Your task to perform on an android device: What's on my calendar tomorrow? Image 0: 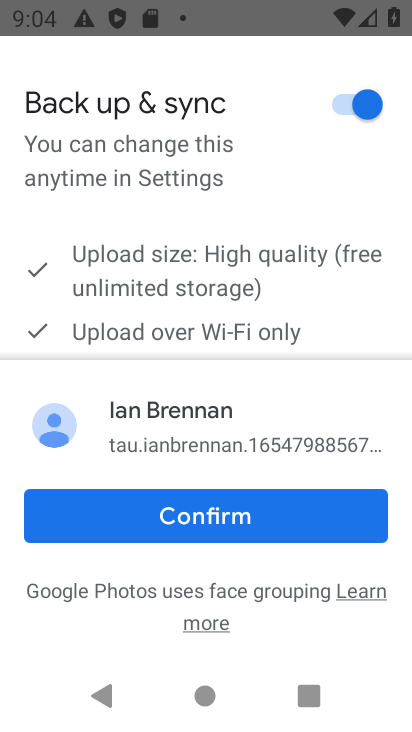
Step 0: press back button
Your task to perform on an android device: What's on my calendar tomorrow? Image 1: 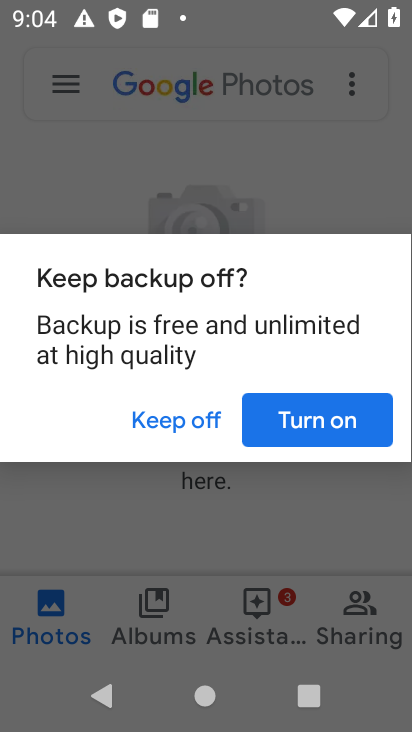
Step 1: press home button
Your task to perform on an android device: What's on my calendar tomorrow? Image 2: 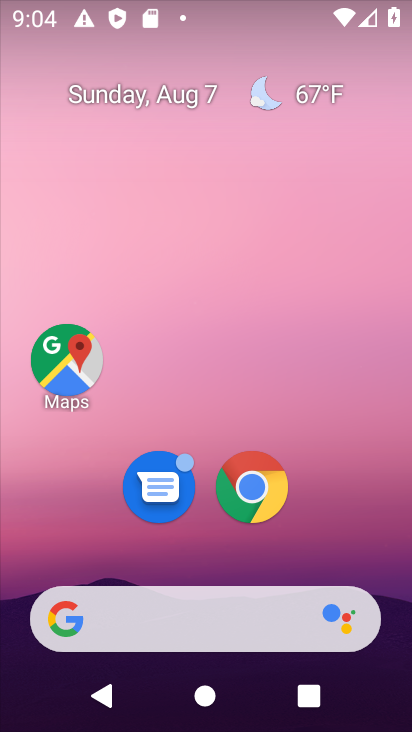
Step 2: drag from (362, 685) to (311, 76)
Your task to perform on an android device: What's on my calendar tomorrow? Image 3: 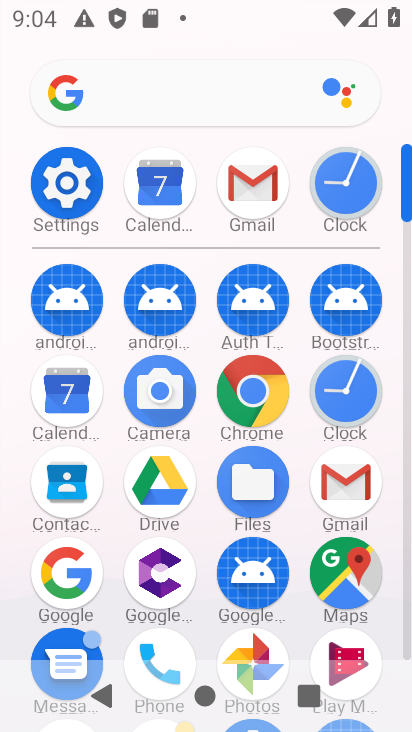
Step 3: click (62, 406)
Your task to perform on an android device: What's on my calendar tomorrow? Image 4: 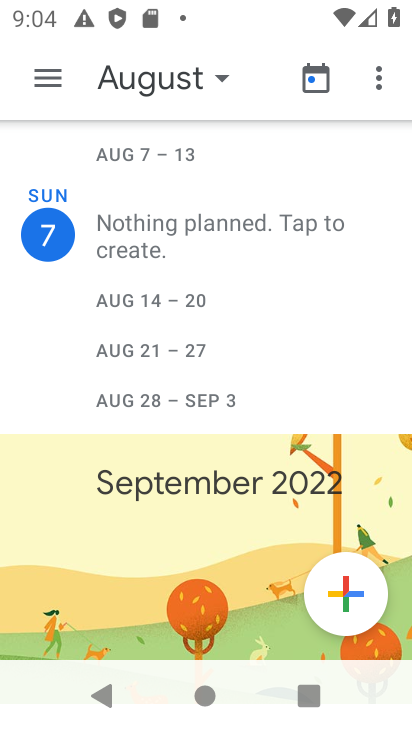
Step 4: click (214, 77)
Your task to perform on an android device: What's on my calendar tomorrow? Image 5: 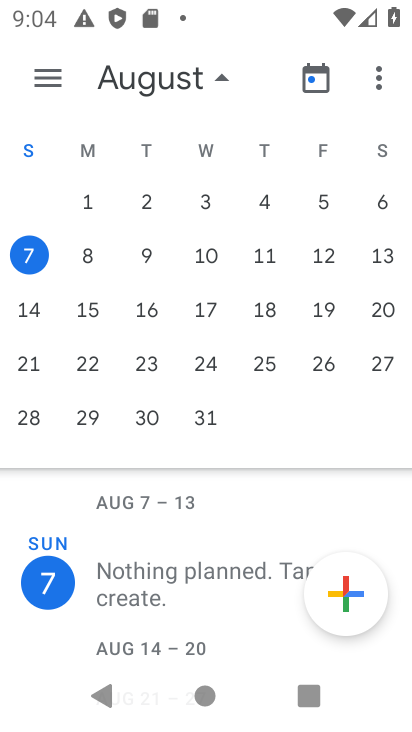
Step 5: click (91, 264)
Your task to perform on an android device: What's on my calendar tomorrow? Image 6: 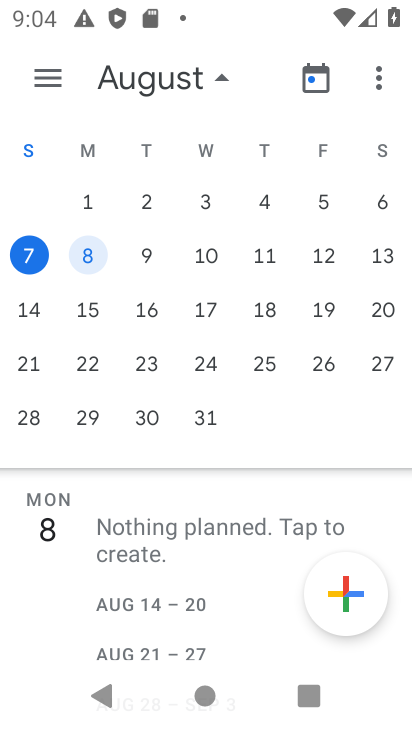
Step 6: click (42, 73)
Your task to perform on an android device: What's on my calendar tomorrow? Image 7: 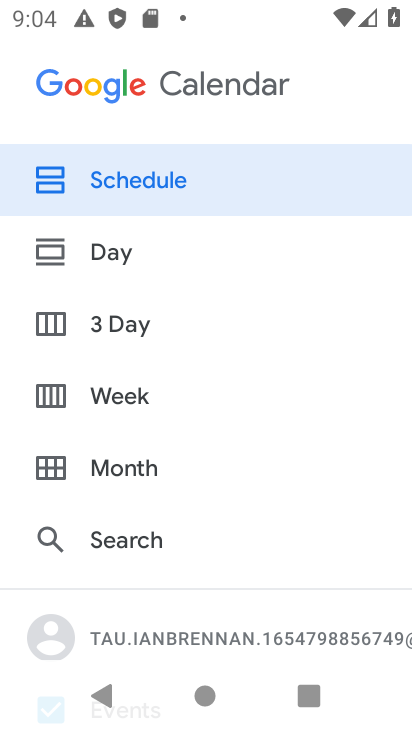
Step 7: click (132, 169)
Your task to perform on an android device: What's on my calendar tomorrow? Image 8: 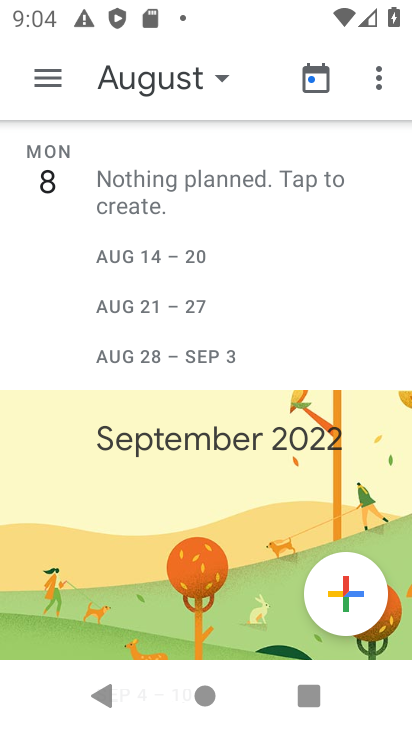
Step 8: task complete